Your task to perform on an android device: Open location settings Image 0: 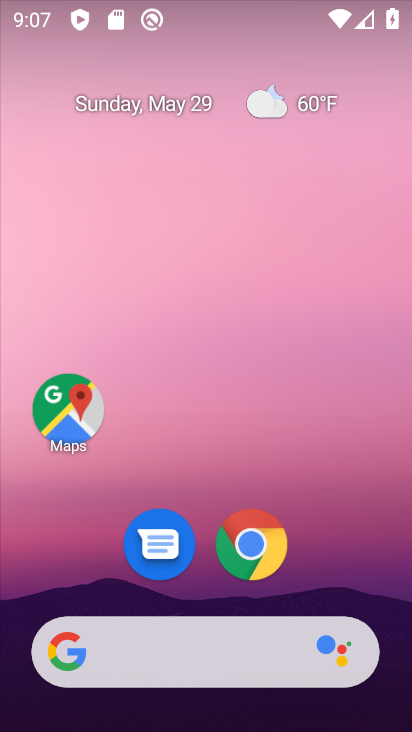
Step 0: drag from (334, 552) to (356, 49)
Your task to perform on an android device: Open location settings Image 1: 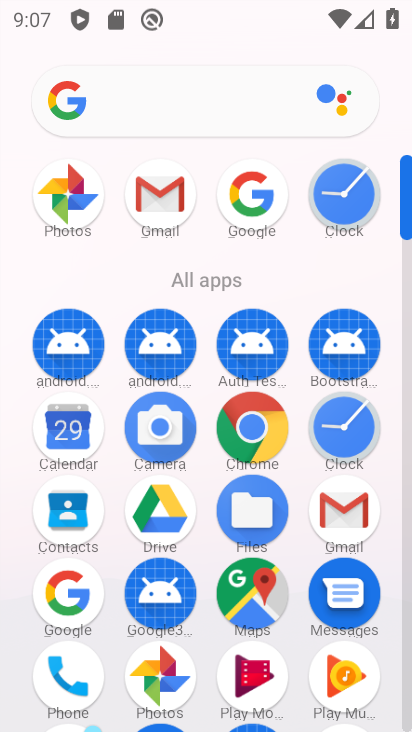
Step 1: drag from (209, 635) to (225, 143)
Your task to perform on an android device: Open location settings Image 2: 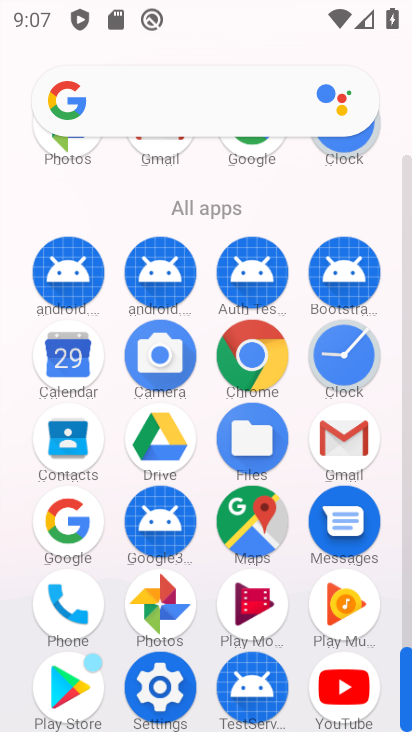
Step 2: click (155, 684)
Your task to perform on an android device: Open location settings Image 3: 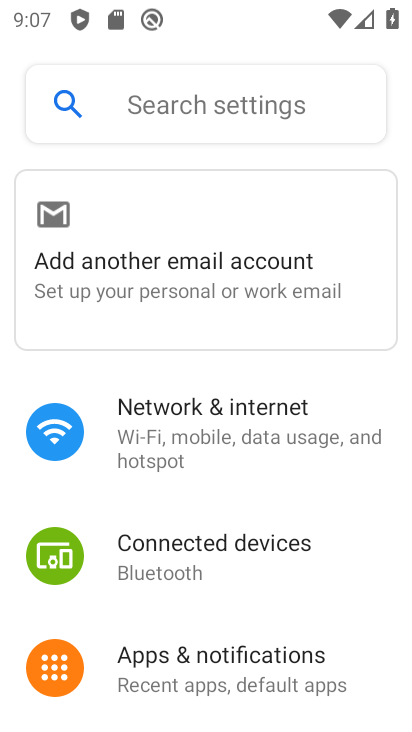
Step 3: drag from (241, 630) to (231, 120)
Your task to perform on an android device: Open location settings Image 4: 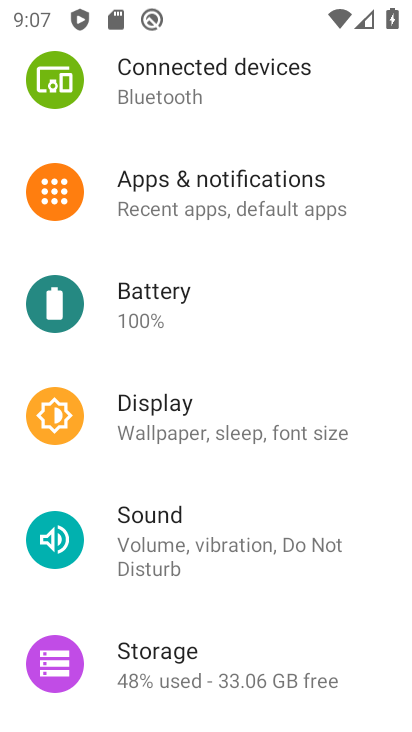
Step 4: drag from (196, 622) to (245, 232)
Your task to perform on an android device: Open location settings Image 5: 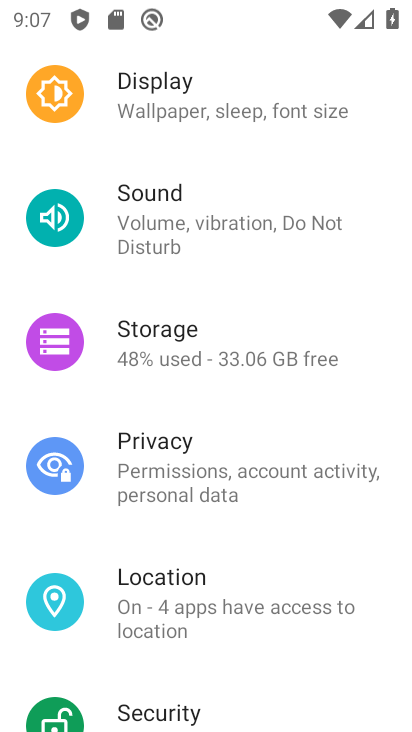
Step 5: click (194, 613)
Your task to perform on an android device: Open location settings Image 6: 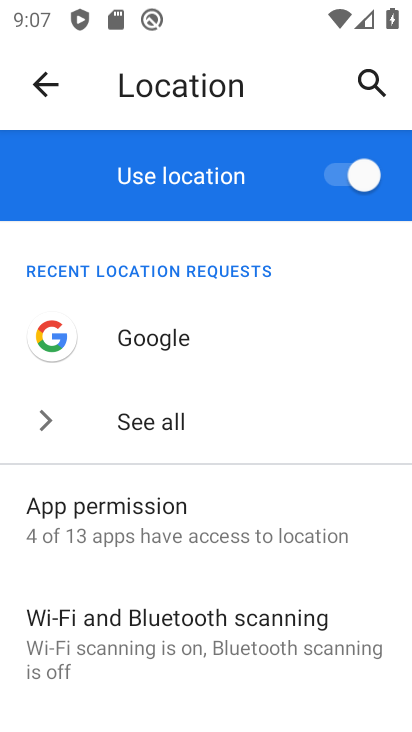
Step 6: task complete